Your task to perform on an android device: What's the weather going to be tomorrow? Image 0: 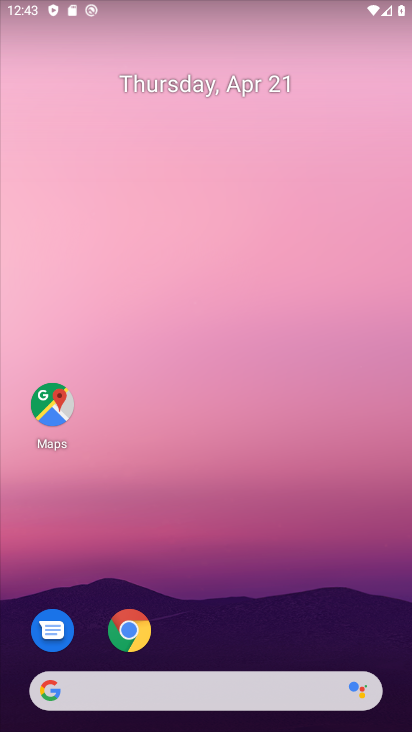
Step 0: drag from (70, 264) to (384, 299)
Your task to perform on an android device: What's the weather going to be tomorrow? Image 1: 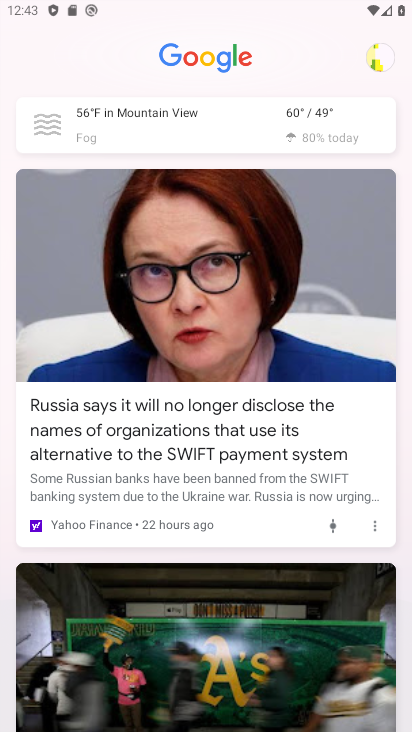
Step 1: click (166, 109)
Your task to perform on an android device: What's the weather going to be tomorrow? Image 2: 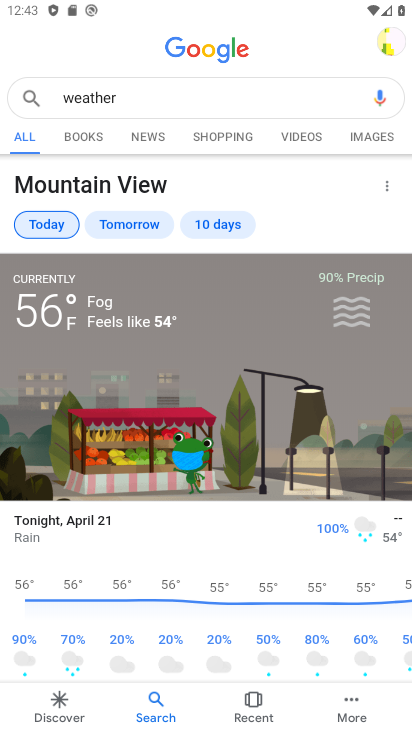
Step 2: click (155, 232)
Your task to perform on an android device: What's the weather going to be tomorrow? Image 3: 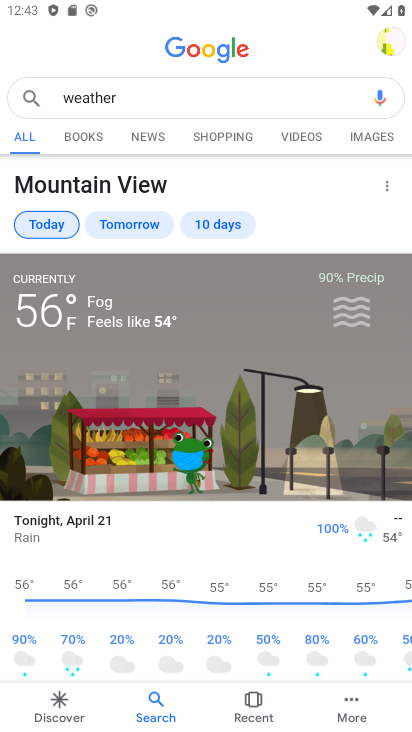
Step 3: drag from (201, 560) to (173, 103)
Your task to perform on an android device: What's the weather going to be tomorrow? Image 4: 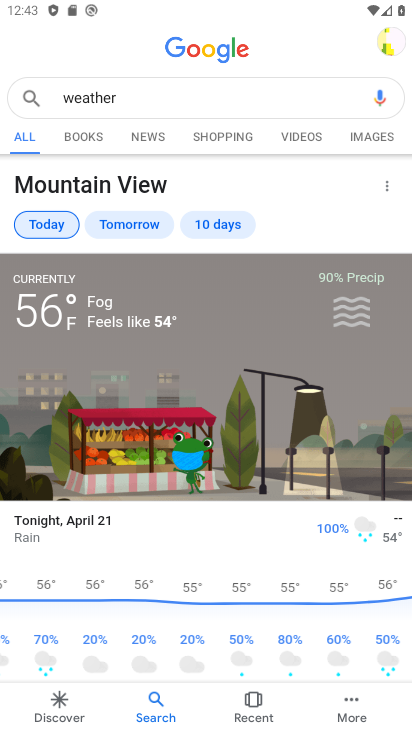
Step 4: click (162, 101)
Your task to perform on an android device: What's the weather going to be tomorrow? Image 5: 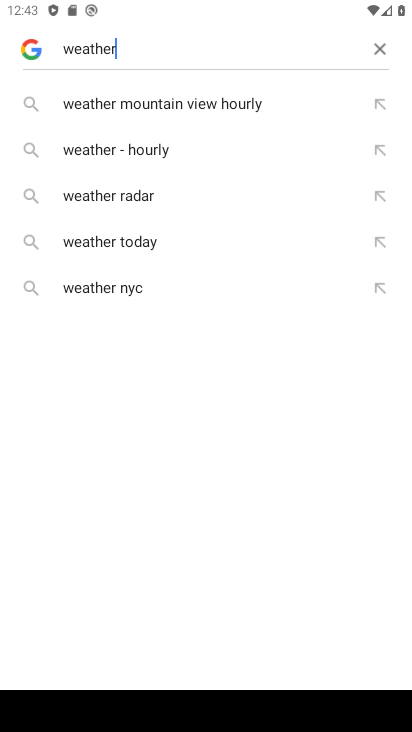
Step 5: type " tomorrow"
Your task to perform on an android device: What's the weather going to be tomorrow? Image 6: 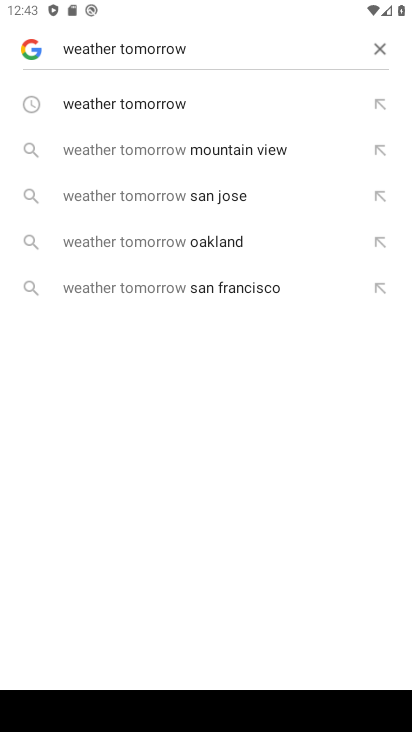
Step 6: click (230, 96)
Your task to perform on an android device: What's the weather going to be tomorrow? Image 7: 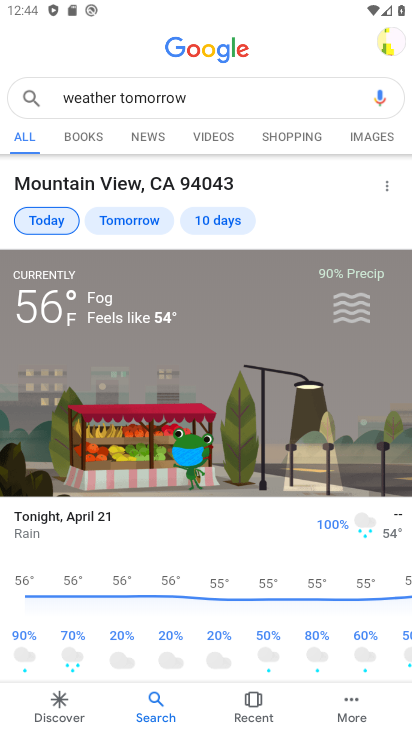
Step 7: task complete